Your task to perform on an android device: Go to Yahoo.com Image 0: 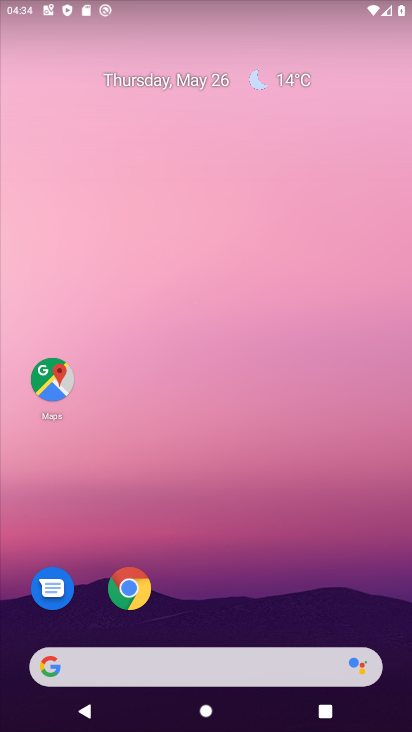
Step 0: click (163, 656)
Your task to perform on an android device: Go to Yahoo.com Image 1: 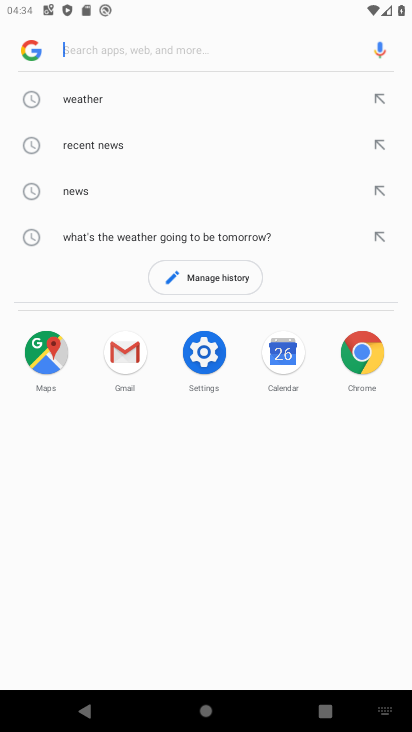
Step 1: type "yahoo.com"
Your task to perform on an android device: Go to Yahoo.com Image 2: 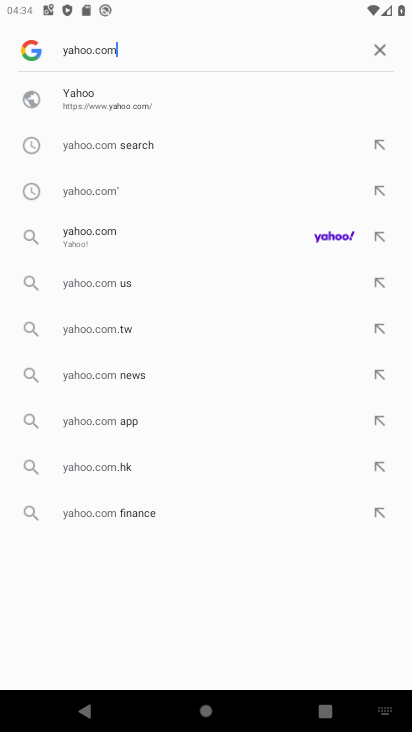
Step 2: click (109, 96)
Your task to perform on an android device: Go to Yahoo.com Image 3: 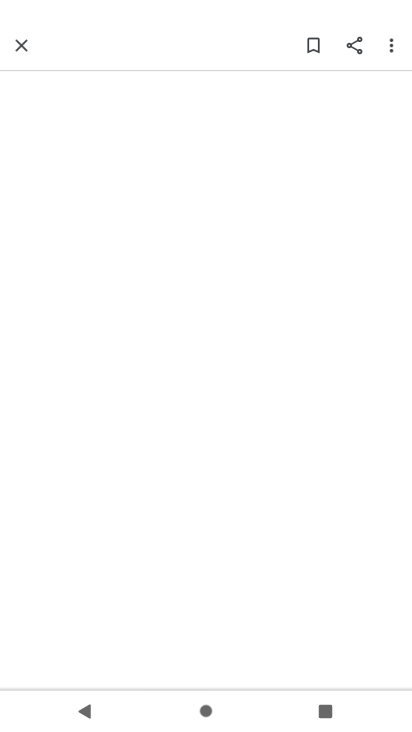
Step 3: task complete